Your task to perform on an android device: Open location settings Image 0: 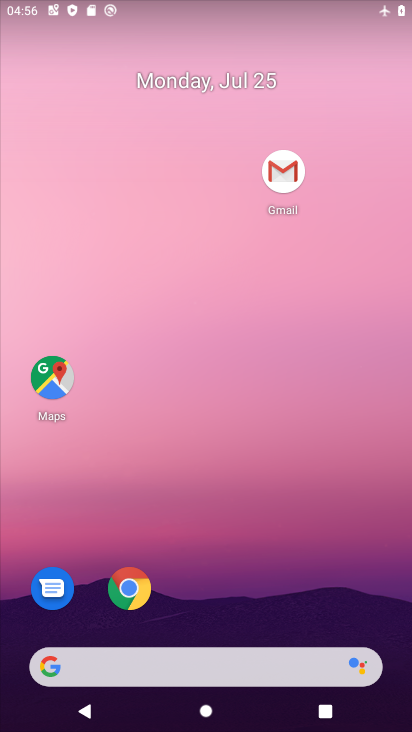
Step 0: drag from (253, 582) to (229, 44)
Your task to perform on an android device: Open location settings Image 1: 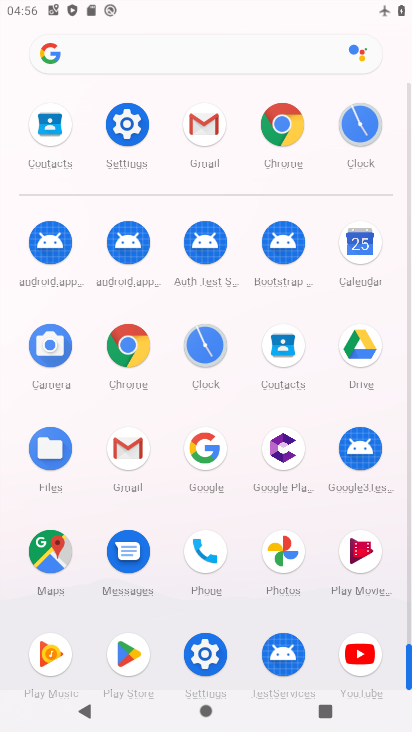
Step 1: click (125, 138)
Your task to perform on an android device: Open location settings Image 2: 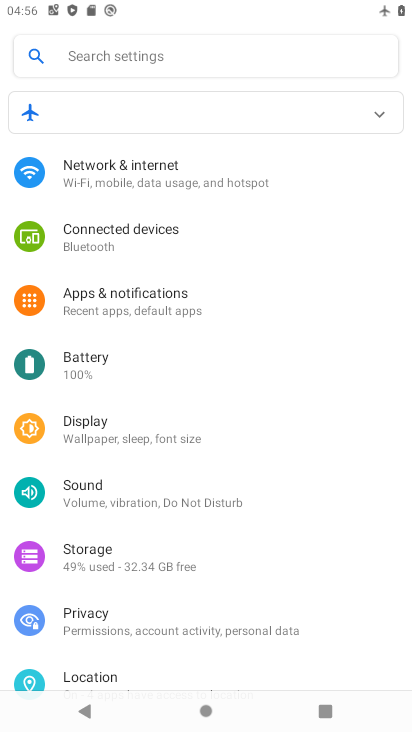
Step 2: click (89, 681)
Your task to perform on an android device: Open location settings Image 3: 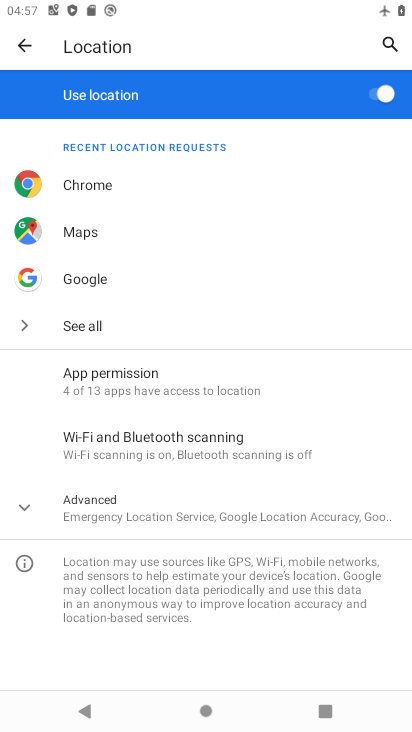
Step 3: task complete